Your task to perform on an android device: turn off location Image 0: 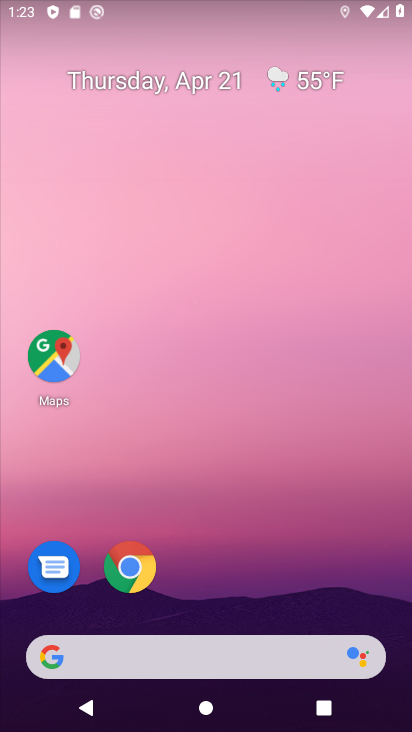
Step 0: drag from (221, 597) to (206, 1)
Your task to perform on an android device: turn off location Image 1: 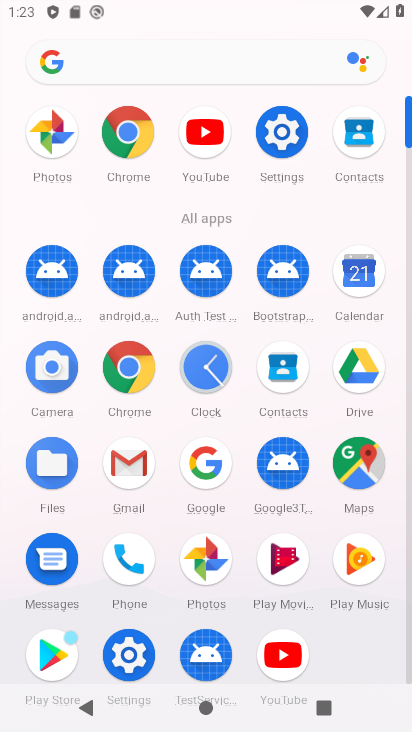
Step 1: click (273, 130)
Your task to perform on an android device: turn off location Image 2: 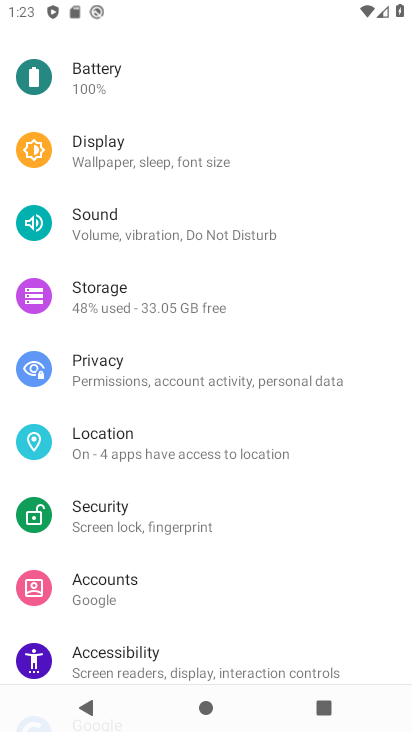
Step 2: click (119, 446)
Your task to perform on an android device: turn off location Image 3: 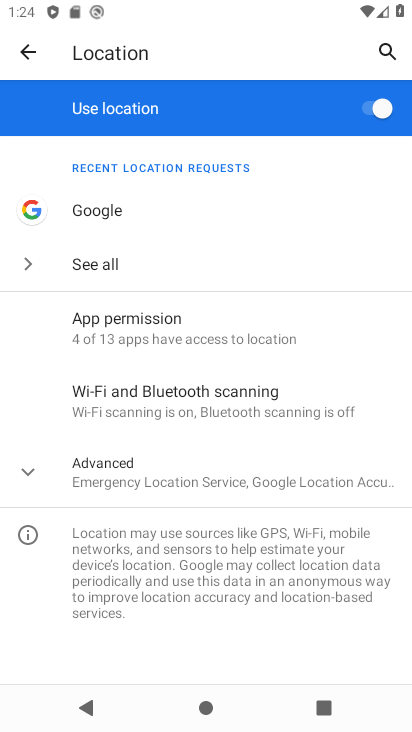
Step 3: click (367, 109)
Your task to perform on an android device: turn off location Image 4: 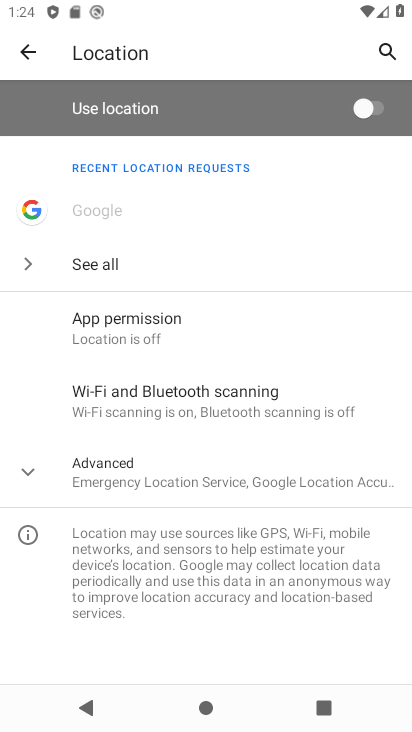
Step 4: task complete